Your task to perform on an android device: Open the calendar and show me this week's events Image 0: 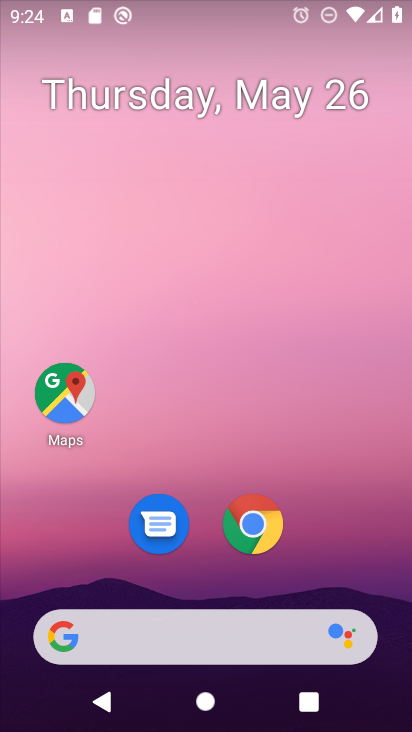
Step 0: drag from (318, 491) to (306, 25)
Your task to perform on an android device: Open the calendar and show me this week's events Image 1: 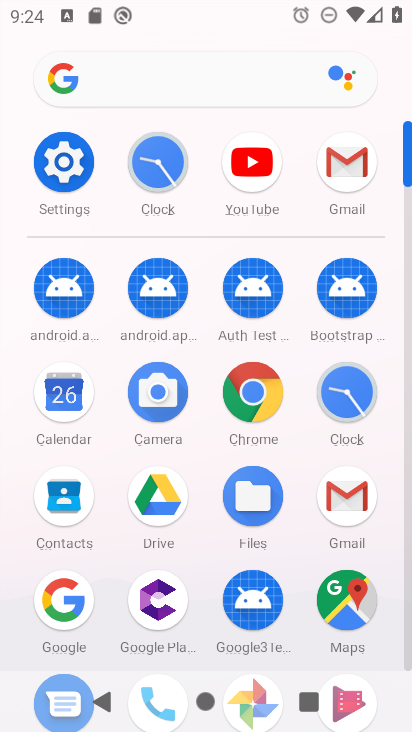
Step 1: click (69, 389)
Your task to perform on an android device: Open the calendar and show me this week's events Image 2: 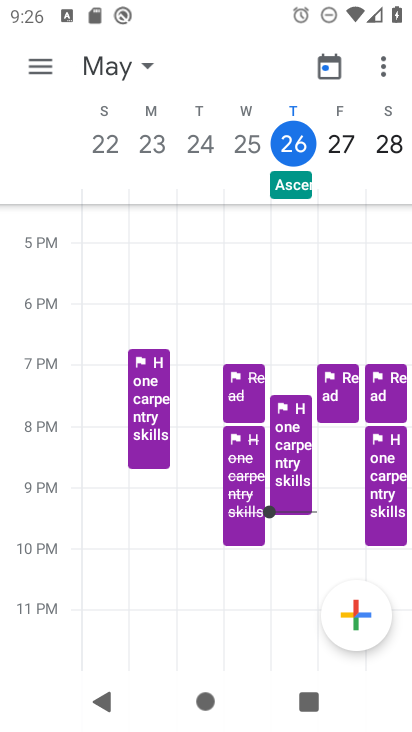
Step 2: task complete